Your task to perform on an android device: Search for pizza restaurants on Maps Image 0: 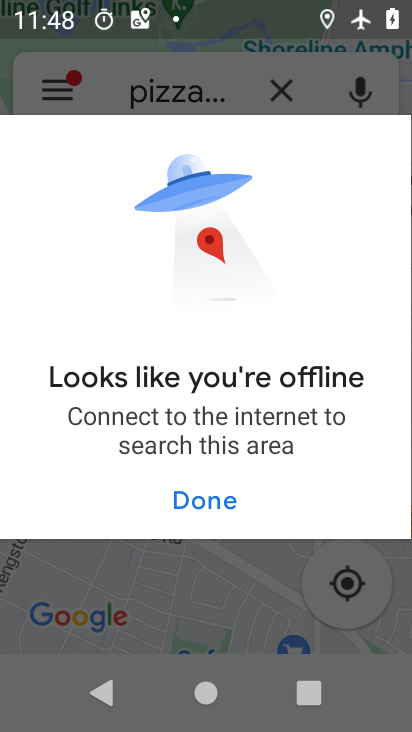
Step 0: task impossible